Your task to perform on an android device: turn off location Image 0: 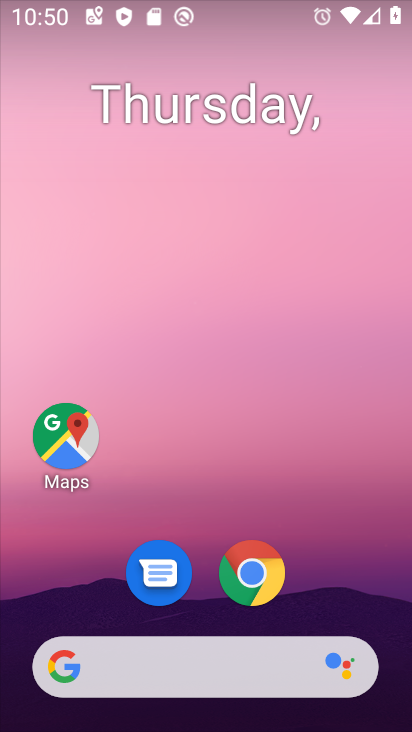
Step 0: drag from (360, 558) to (328, 172)
Your task to perform on an android device: turn off location Image 1: 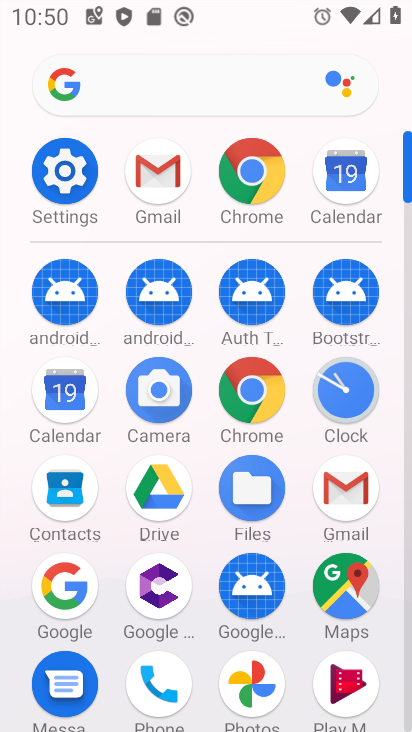
Step 1: click (79, 177)
Your task to perform on an android device: turn off location Image 2: 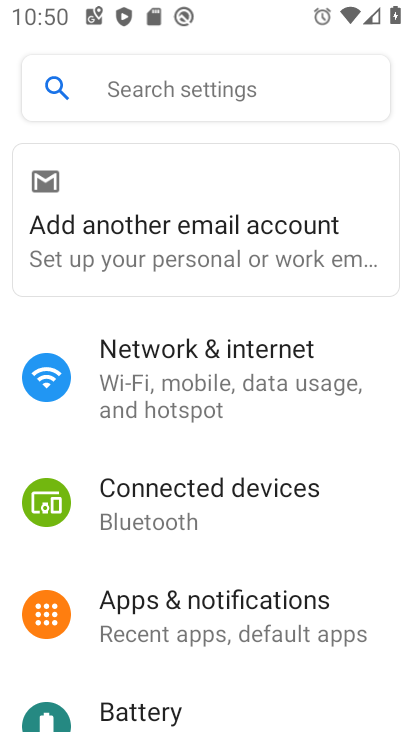
Step 2: drag from (244, 633) to (276, 103)
Your task to perform on an android device: turn off location Image 3: 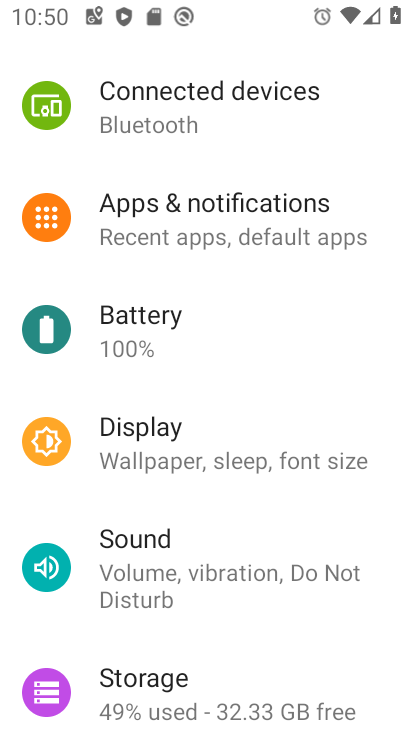
Step 3: drag from (167, 622) to (245, 186)
Your task to perform on an android device: turn off location Image 4: 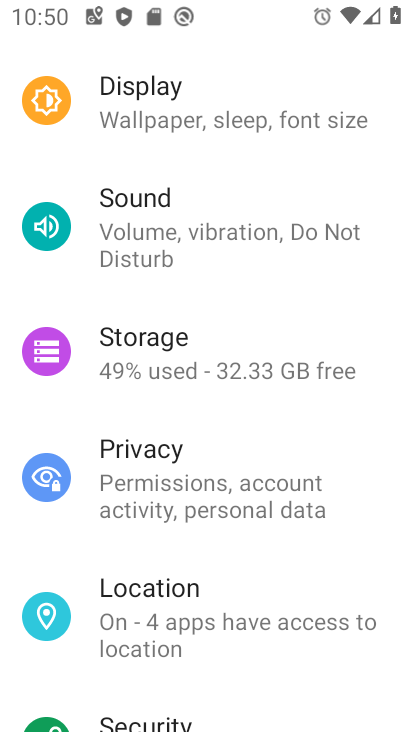
Step 4: click (176, 625)
Your task to perform on an android device: turn off location Image 5: 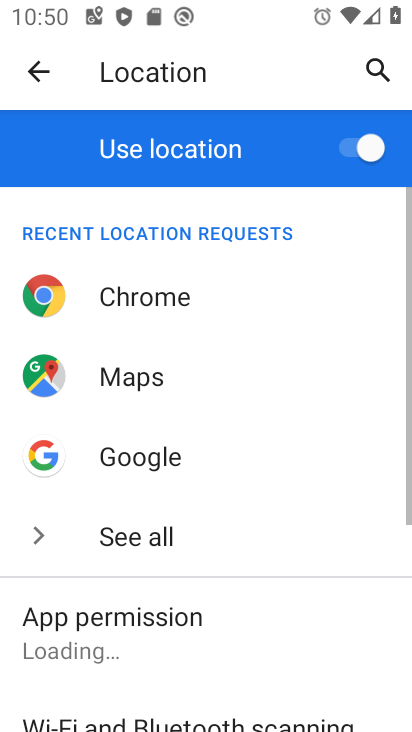
Step 5: click (376, 155)
Your task to perform on an android device: turn off location Image 6: 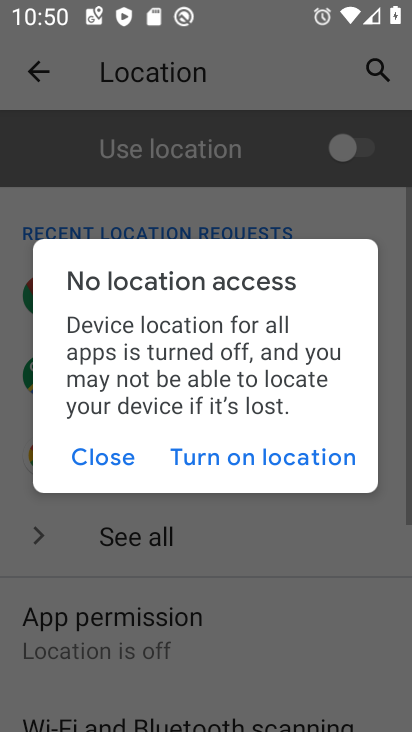
Step 6: task complete